Your task to perform on an android device: set the stopwatch Image 0: 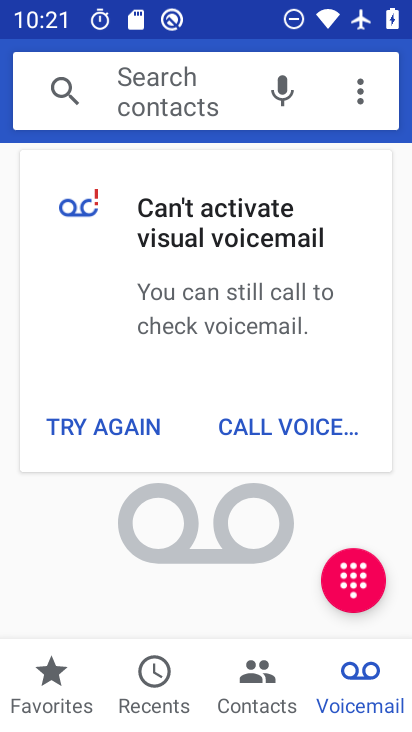
Step 0: press home button
Your task to perform on an android device: set the stopwatch Image 1: 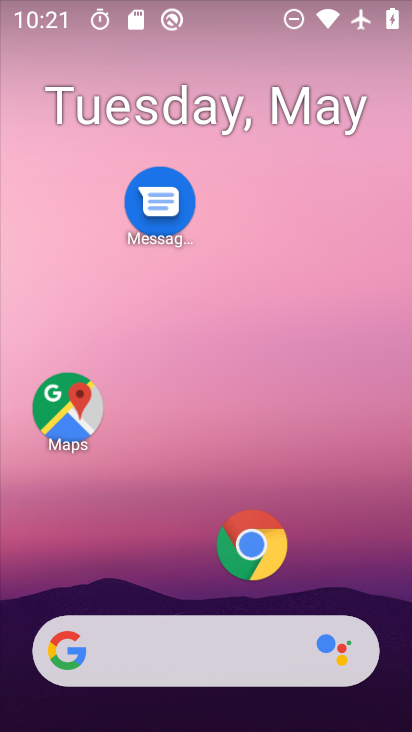
Step 1: drag from (194, 571) to (158, 149)
Your task to perform on an android device: set the stopwatch Image 2: 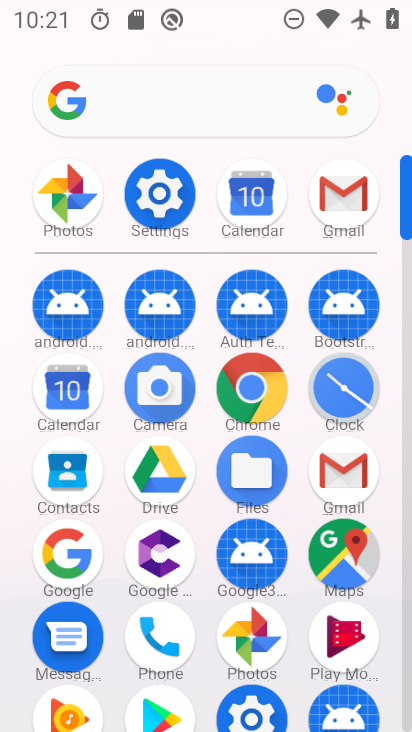
Step 2: click (346, 385)
Your task to perform on an android device: set the stopwatch Image 3: 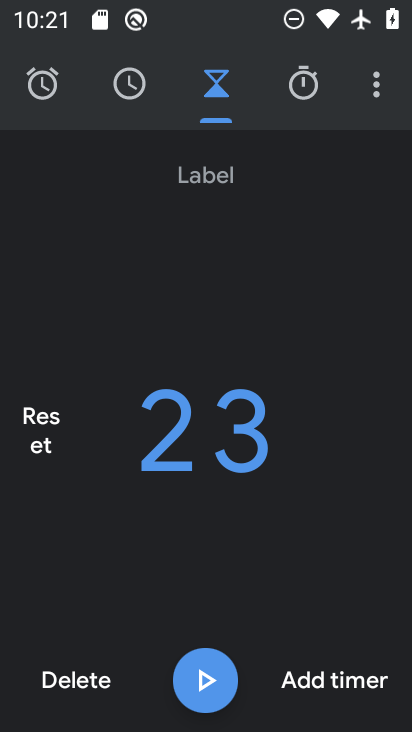
Step 3: click (301, 88)
Your task to perform on an android device: set the stopwatch Image 4: 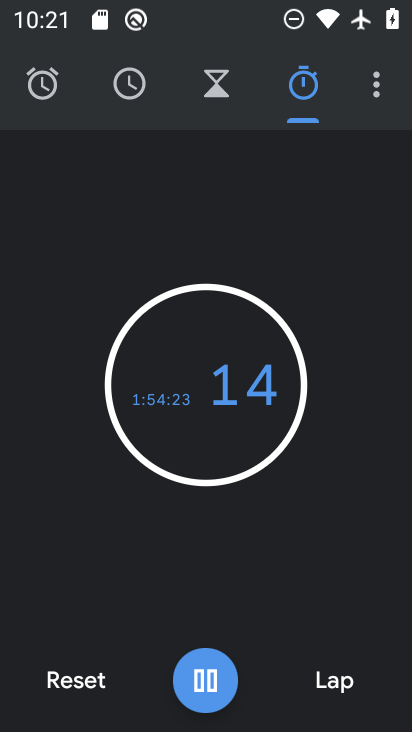
Step 4: task complete